Your task to perform on an android device: open a bookmark in the chrome app Image 0: 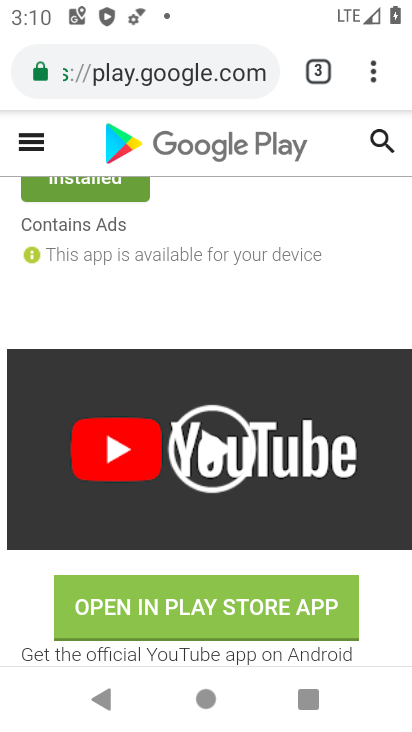
Step 0: press home button
Your task to perform on an android device: open a bookmark in the chrome app Image 1: 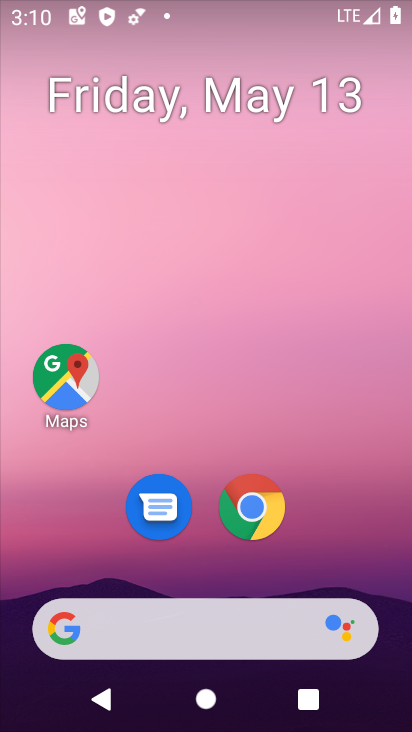
Step 1: click (268, 507)
Your task to perform on an android device: open a bookmark in the chrome app Image 2: 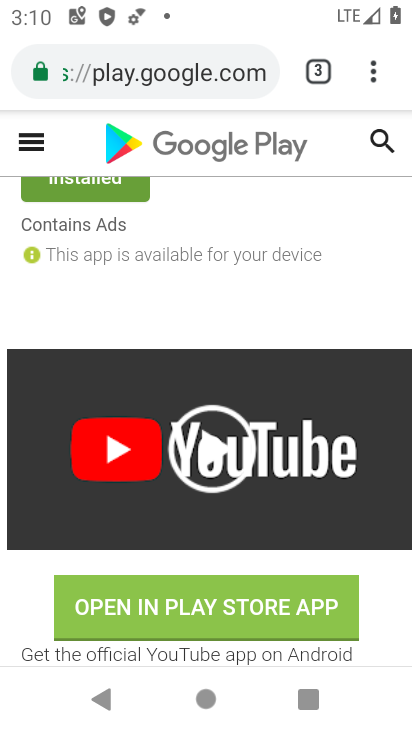
Step 2: click (365, 62)
Your task to perform on an android device: open a bookmark in the chrome app Image 3: 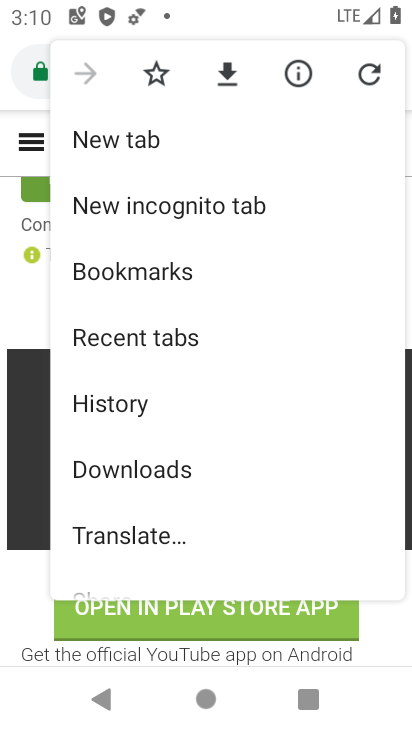
Step 3: click (228, 252)
Your task to perform on an android device: open a bookmark in the chrome app Image 4: 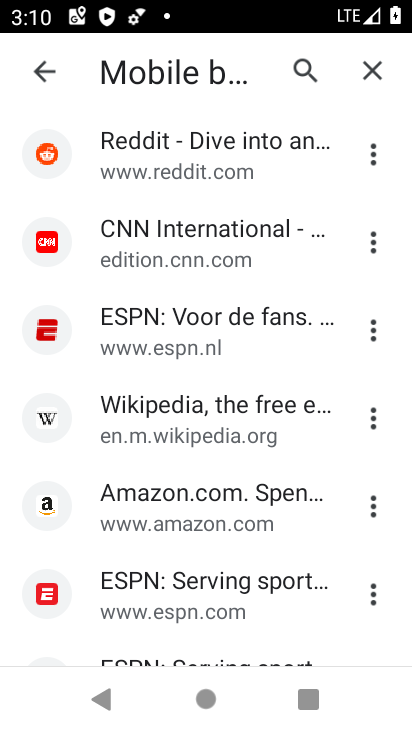
Step 4: task complete